Your task to perform on an android device: Open Amazon Image 0: 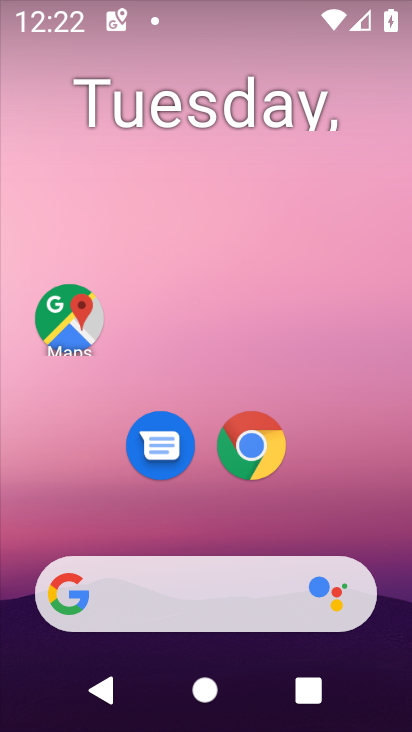
Step 0: drag from (390, 526) to (390, 210)
Your task to perform on an android device: Open Amazon Image 1: 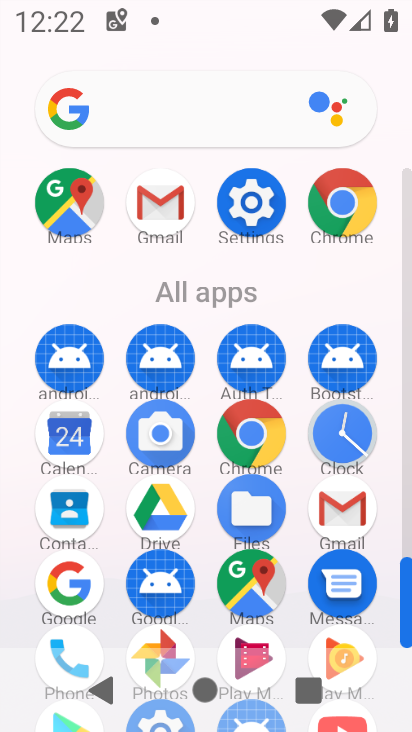
Step 1: click (267, 452)
Your task to perform on an android device: Open Amazon Image 2: 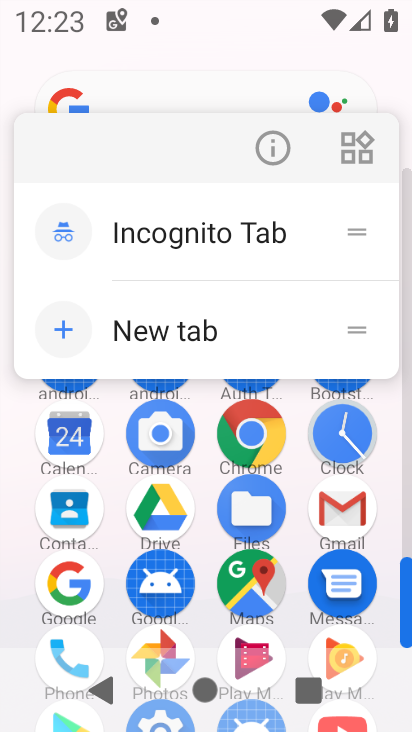
Step 2: click (267, 452)
Your task to perform on an android device: Open Amazon Image 3: 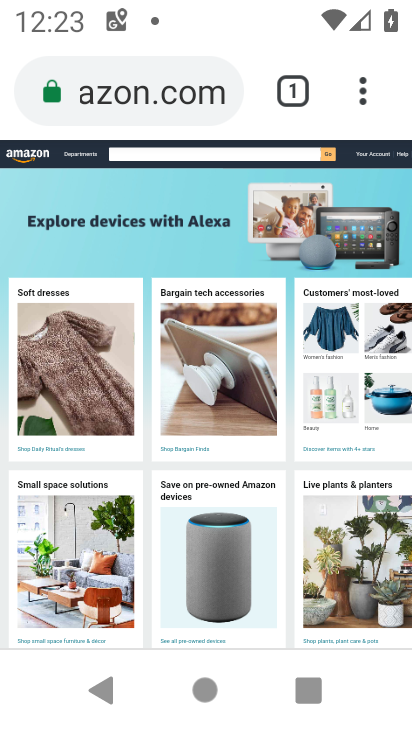
Step 3: task complete